Your task to perform on an android device: Open Google Maps and go to "Timeline" Image 0: 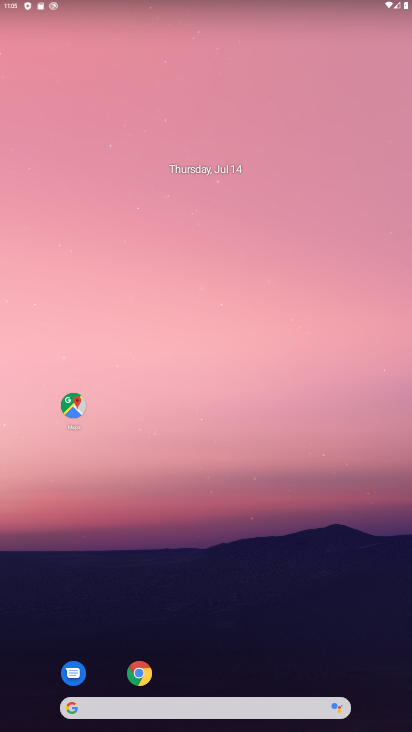
Step 0: click (69, 417)
Your task to perform on an android device: Open Google Maps and go to "Timeline" Image 1: 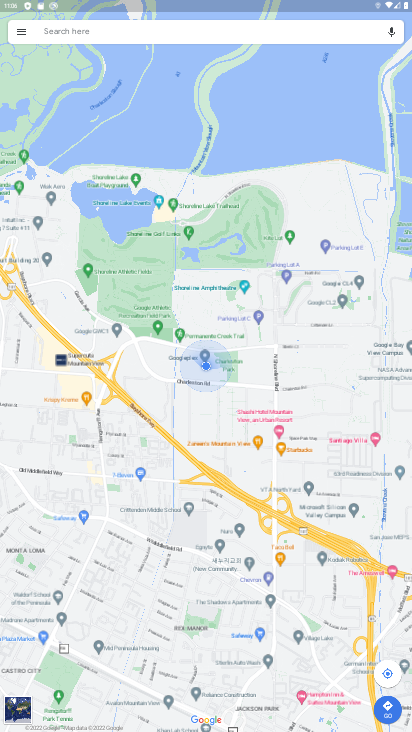
Step 1: click (22, 30)
Your task to perform on an android device: Open Google Maps and go to "Timeline" Image 2: 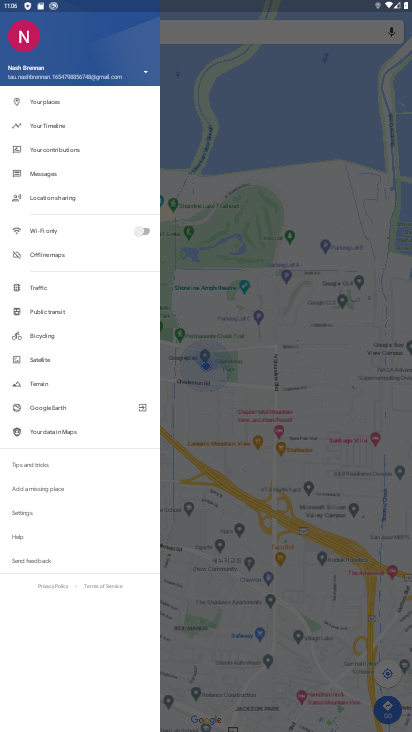
Step 2: click (58, 126)
Your task to perform on an android device: Open Google Maps and go to "Timeline" Image 3: 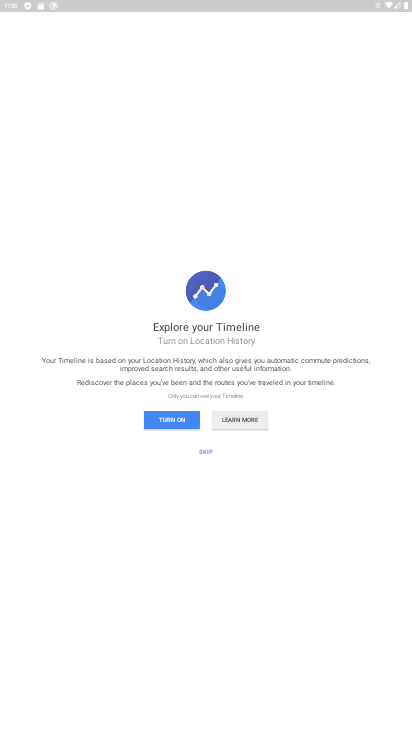
Step 3: task complete